Your task to perform on an android device: Set the phone to "Do not disturb". Image 0: 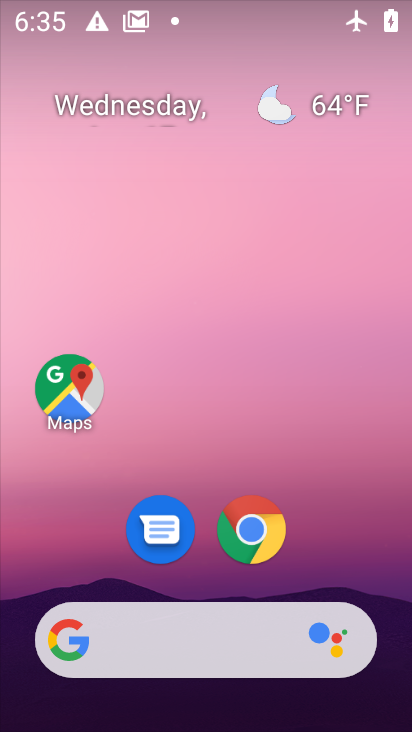
Step 0: drag from (183, 562) to (177, 31)
Your task to perform on an android device: Set the phone to "Do not disturb". Image 1: 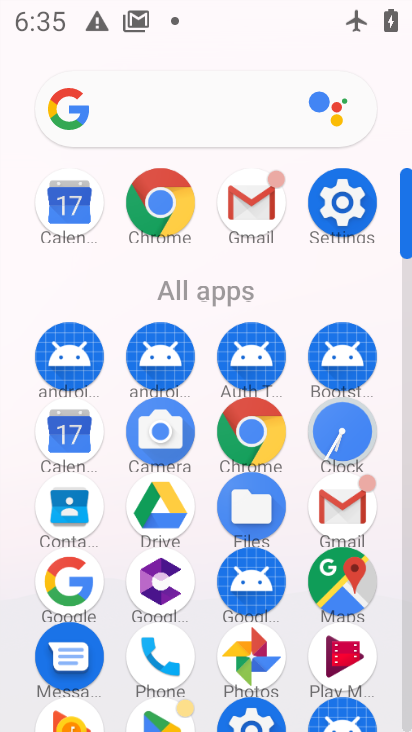
Step 1: click (342, 201)
Your task to perform on an android device: Set the phone to "Do not disturb". Image 2: 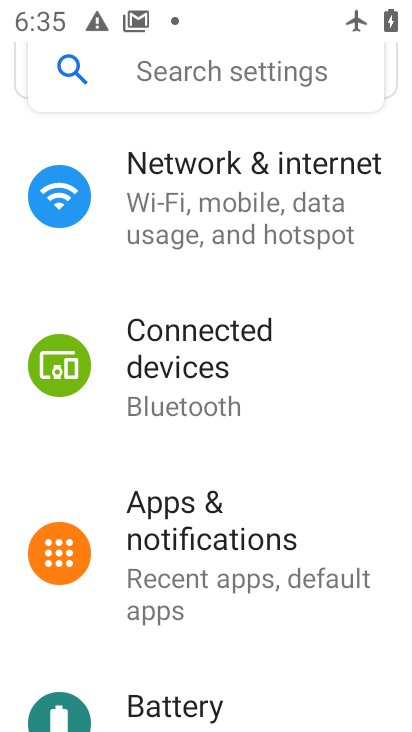
Step 2: drag from (209, 664) to (209, 396)
Your task to perform on an android device: Set the phone to "Do not disturb". Image 3: 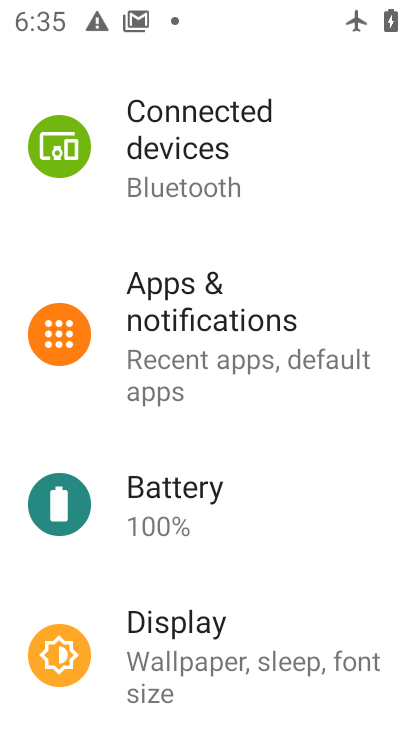
Step 3: drag from (256, 574) to (250, 256)
Your task to perform on an android device: Set the phone to "Do not disturb". Image 4: 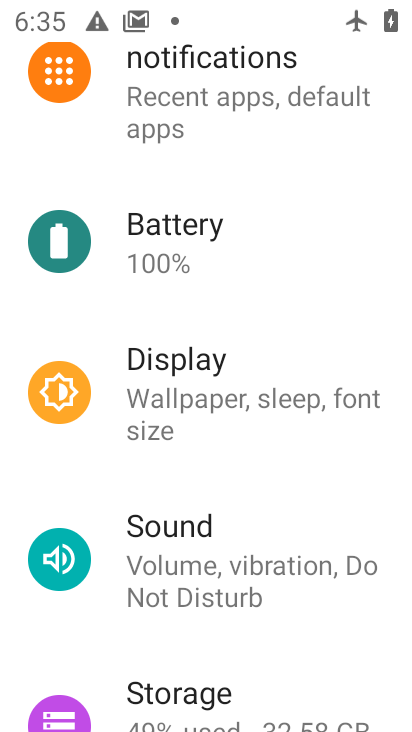
Step 4: click (168, 557)
Your task to perform on an android device: Set the phone to "Do not disturb". Image 5: 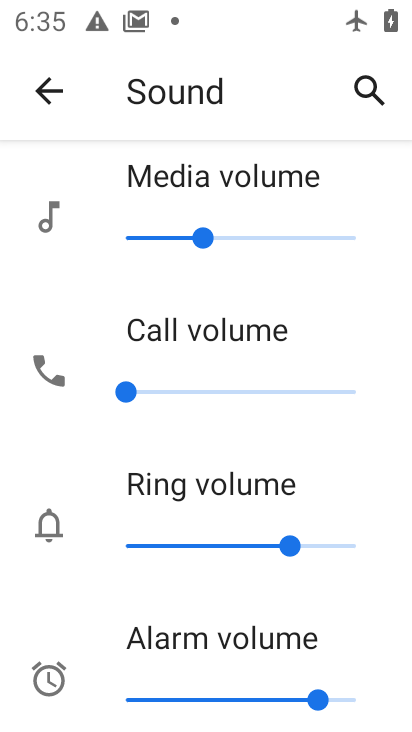
Step 5: drag from (170, 495) to (188, 286)
Your task to perform on an android device: Set the phone to "Do not disturb". Image 6: 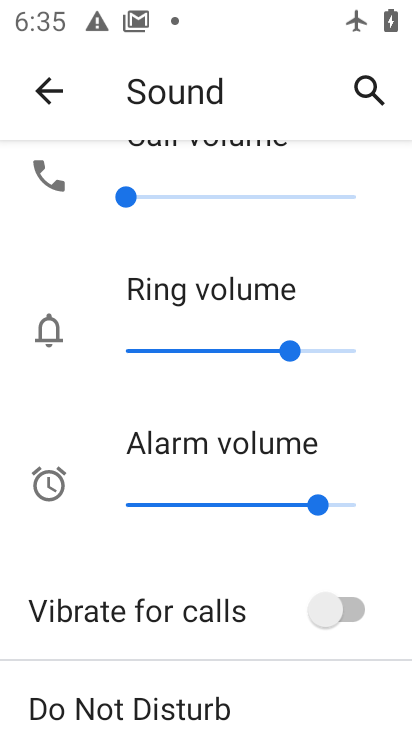
Step 6: drag from (174, 659) to (173, 438)
Your task to perform on an android device: Set the phone to "Do not disturb". Image 7: 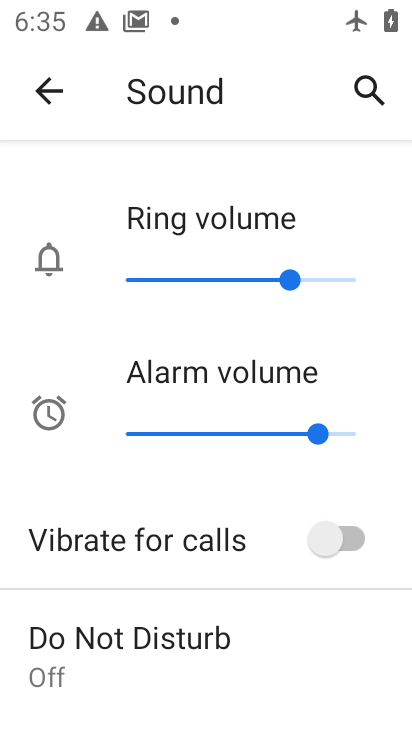
Step 7: click (84, 655)
Your task to perform on an android device: Set the phone to "Do not disturb". Image 8: 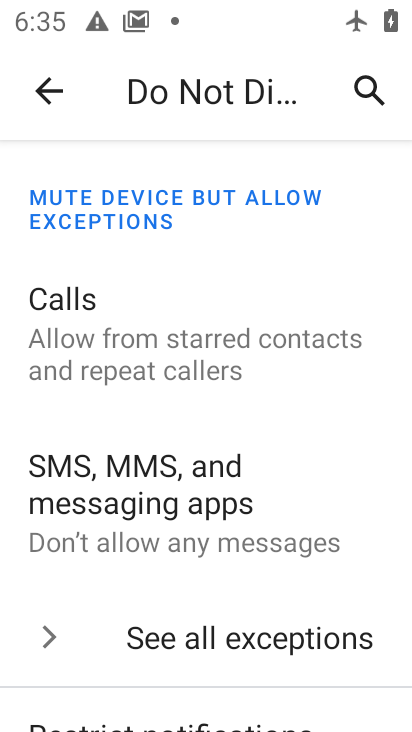
Step 8: drag from (247, 488) to (240, 352)
Your task to perform on an android device: Set the phone to "Do not disturb". Image 9: 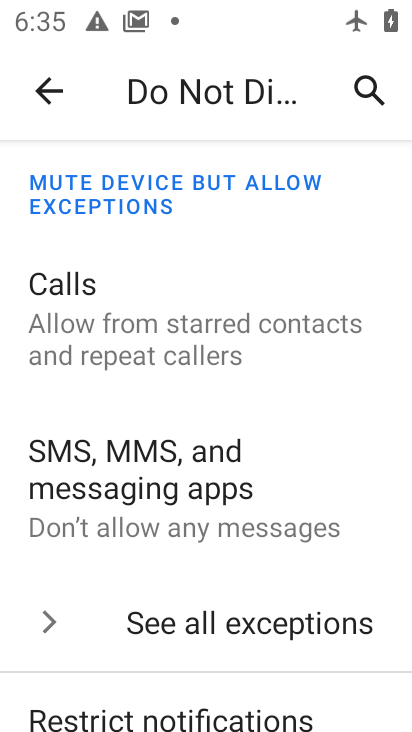
Step 9: drag from (180, 627) to (177, 378)
Your task to perform on an android device: Set the phone to "Do not disturb". Image 10: 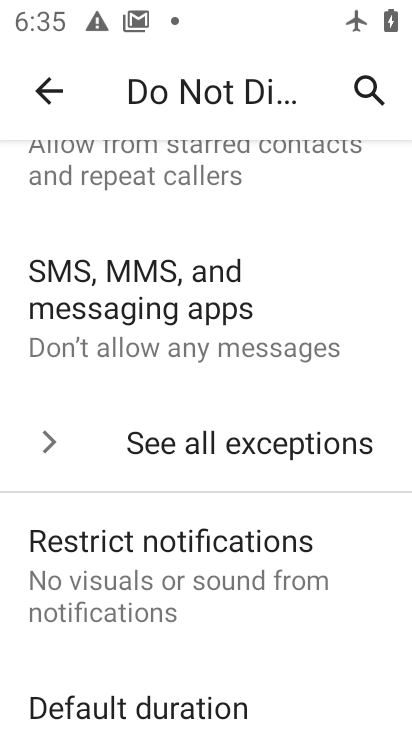
Step 10: drag from (262, 622) to (299, 160)
Your task to perform on an android device: Set the phone to "Do not disturb". Image 11: 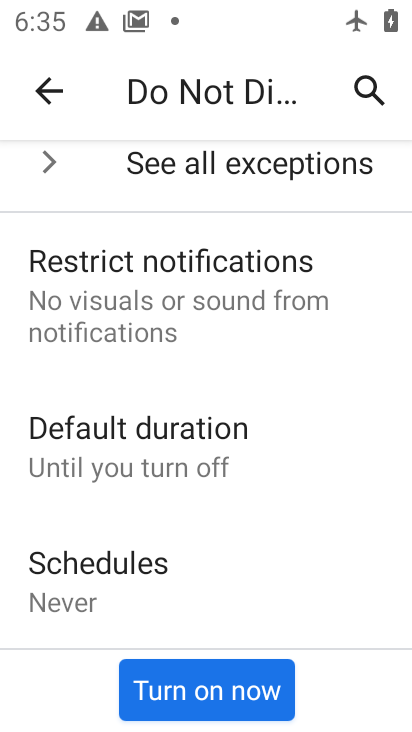
Step 11: click (194, 682)
Your task to perform on an android device: Set the phone to "Do not disturb". Image 12: 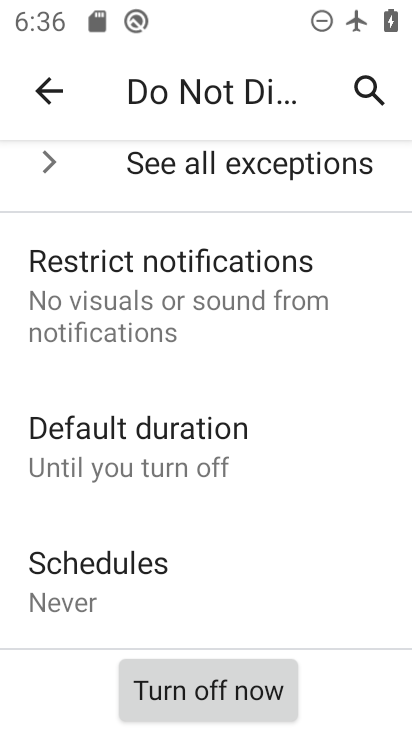
Step 12: task complete